Your task to perform on an android device: Open internet settings Image 0: 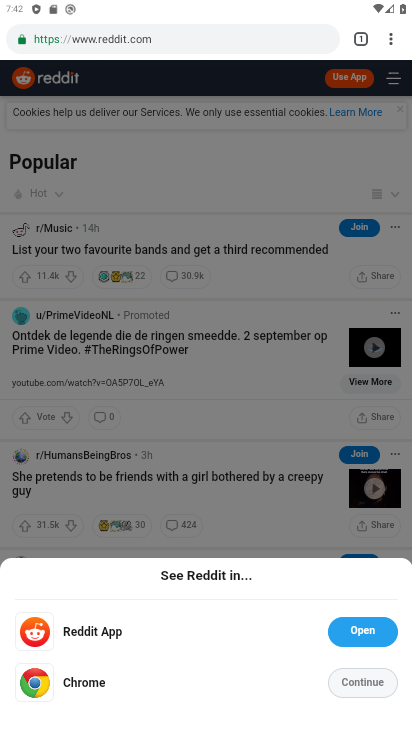
Step 0: click (392, 36)
Your task to perform on an android device: Open internet settings Image 1: 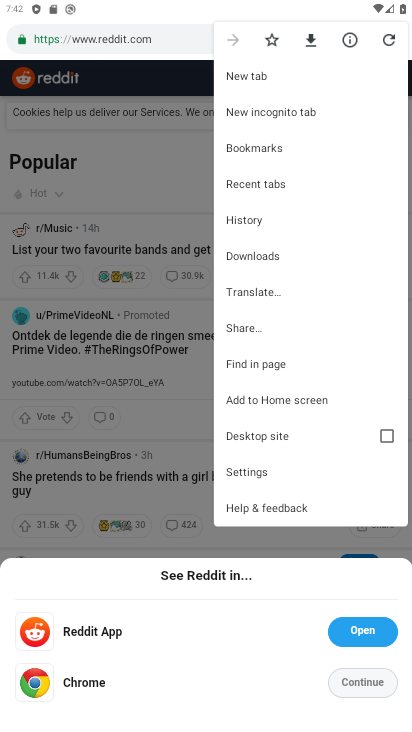
Step 1: click (253, 469)
Your task to perform on an android device: Open internet settings Image 2: 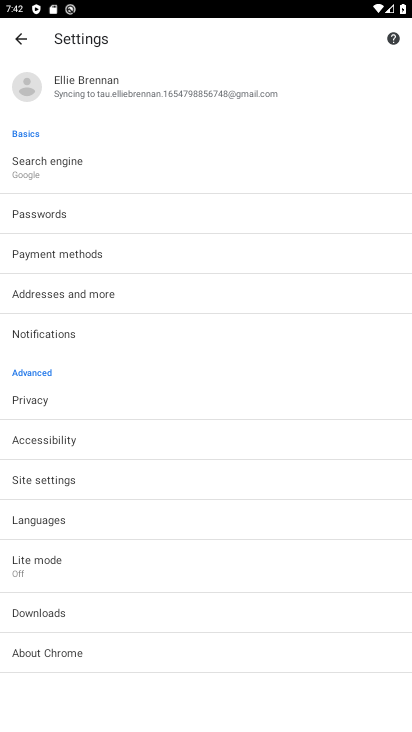
Step 2: click (45, 478)
Your task to perform on an android device: Open internet settings Image 3: 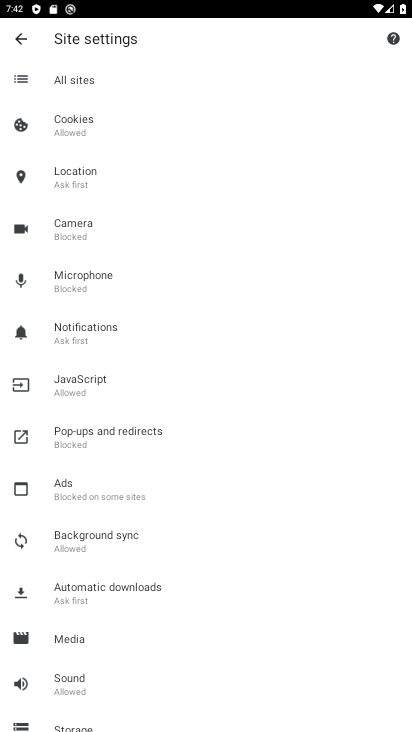
Step 3: click (87, 128)
Your task to perform on an android device: Open internet settings Image 4: 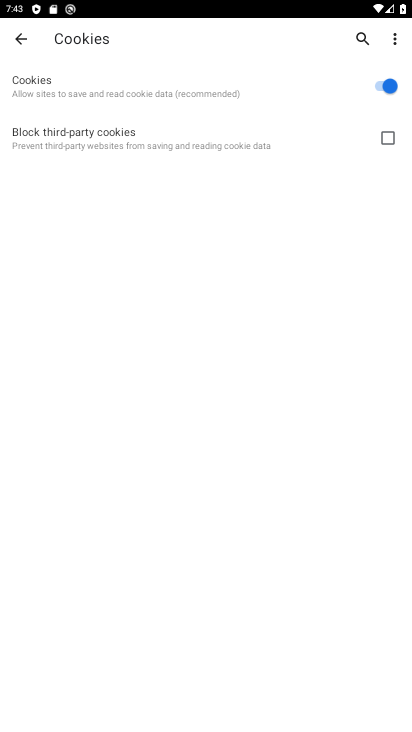
Step 4: click (132, 79)
Your task to perform on an android device: Open internet settings Image 5: 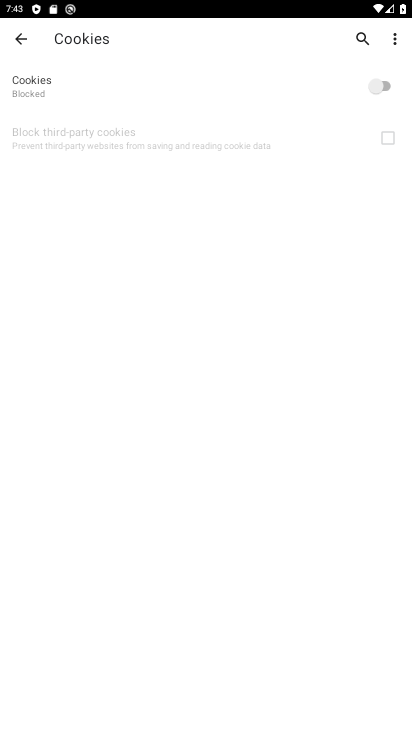
Step 5: click (132, 79)
Your task to perform on an android device: Open internet settings Image 6: 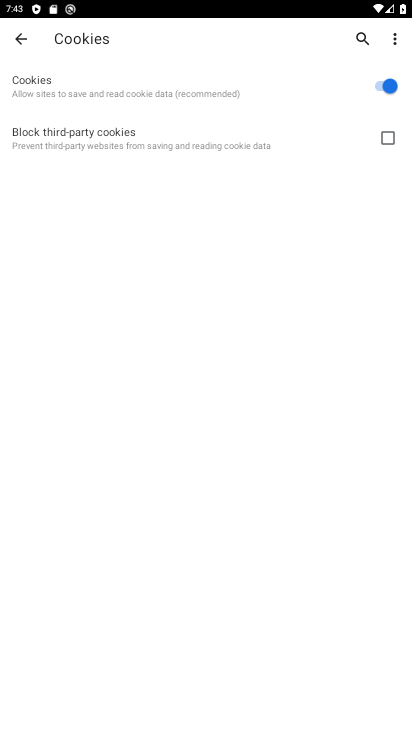
Step 6: task complete